Your task to perform on an android device: Search for seafood restaurants on Google Maps Image 0: 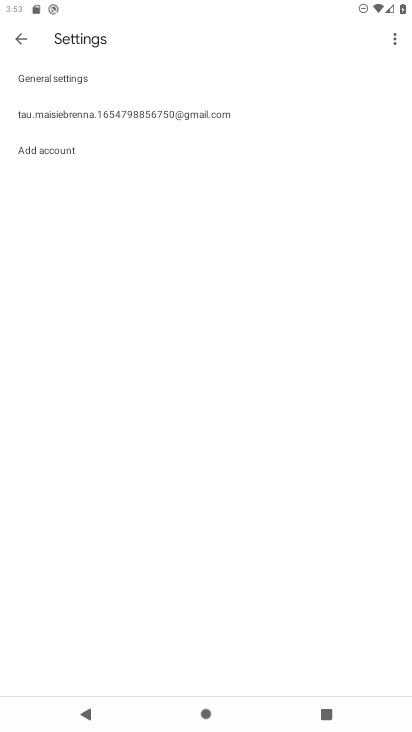
Step 0: press home button
Your task to perform on an android device: Search for seafood restaurants on Google Maps Image 1: 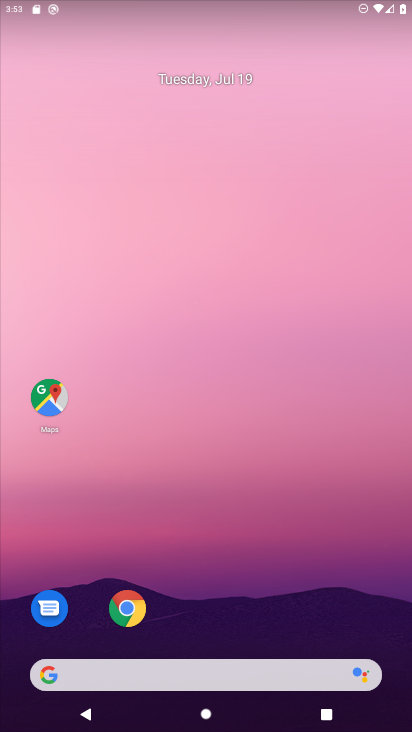
Step 1: drag from (262, 603) to (133, 5)
Your task to perform on an android device: Search for seafood restaurants on Google Maps Image 2: 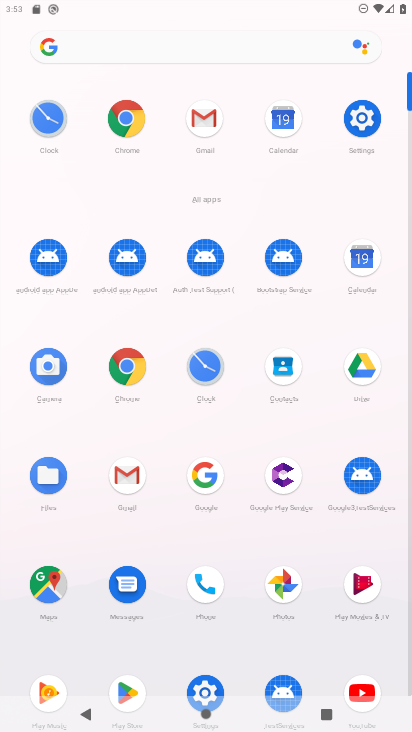
Step 2: click (43, 585)
Your task to perform on an android device: Search for seafood restaurants on Google Maps Image 3: 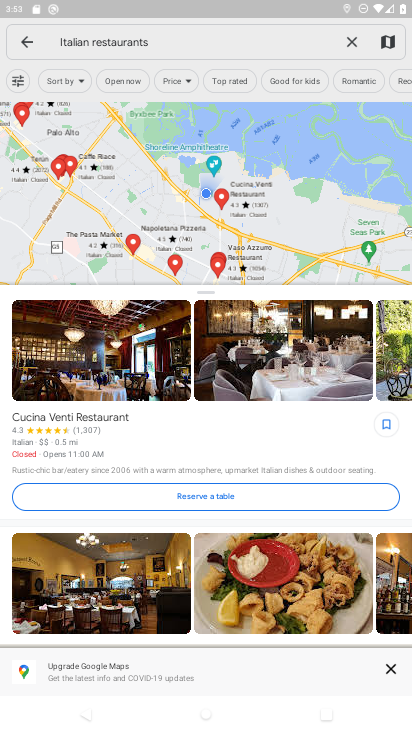
Step 3: click (342, 42)
Your task to perform on an android device: Search for seafood restaurants on Google Maps Image 4: 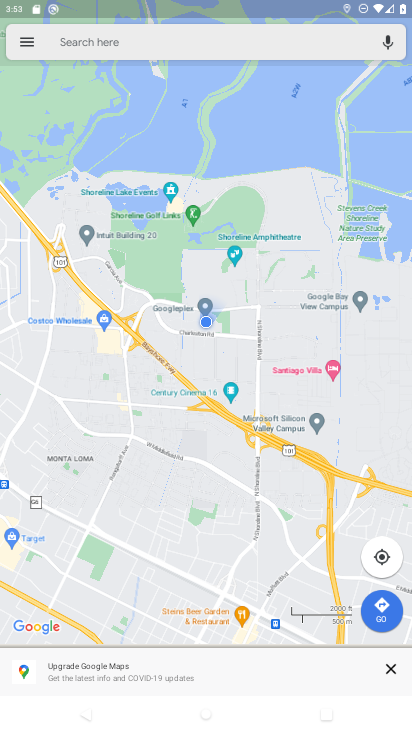
Step 4: click (291, 44)
Your task to perform on an android device: Search for seafood restaurants on Google Maps Image 5: 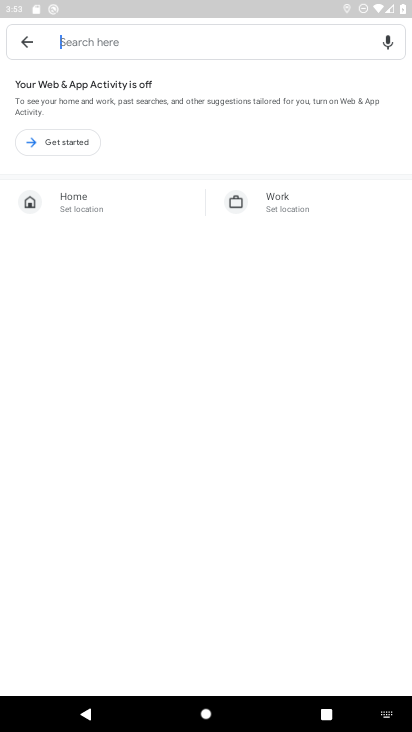
Step 5: type "seafood restaurants"
Your task to perform on an android device: Search for seafood restaurants on Google Maps Image 6: 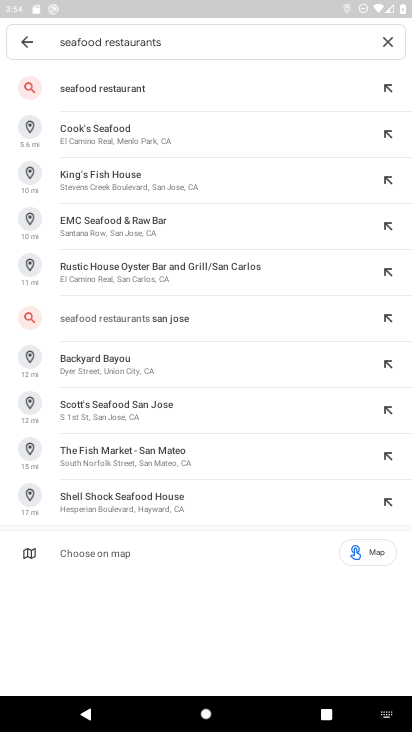
Step 6: press enter
Your task to perform on an android device: Search for seafood restaurants on Google Maps Image 7: 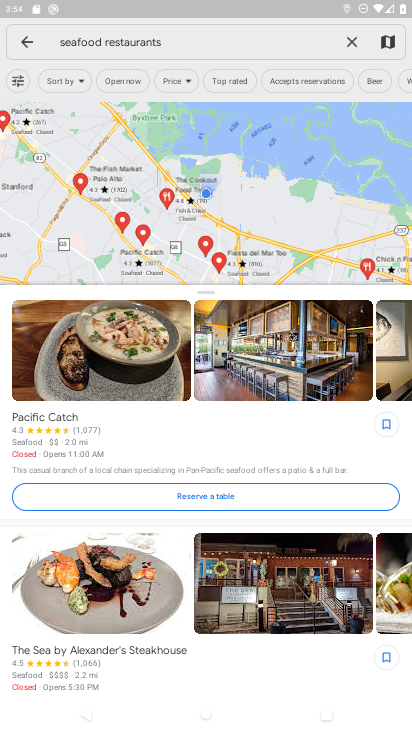
Step 7: task complete